Your task to perform on an android device: turn on translation in the chrome app Image 0: 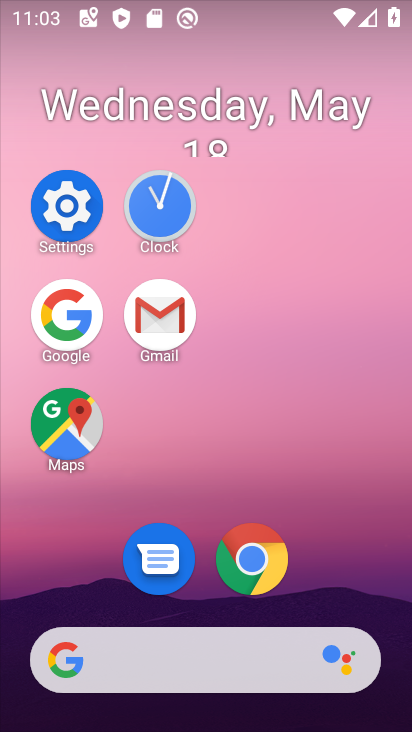
Step 0: click (258, 565)
Your task to perform on an android device: turn on translation in the chrome app Image 1: 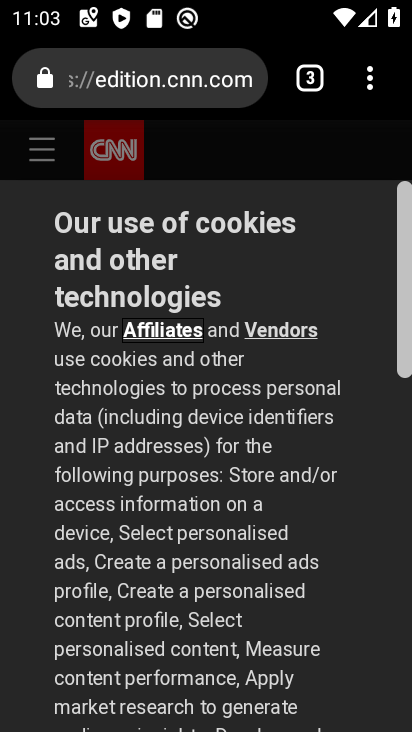
Step 1: click (373, 77)
Your task to perform on an android device: turn on translation in the chrome app Image 2: 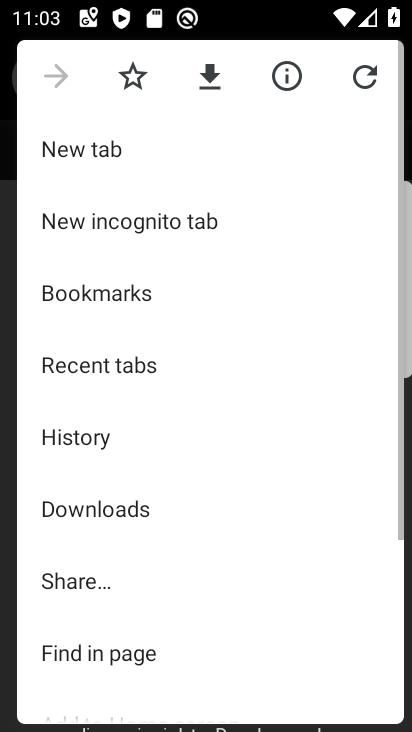
Step 2: drag from (229, 525) to (263, 189)
Your task to perform on an android device: turn on translation in the chrome app Image 3: 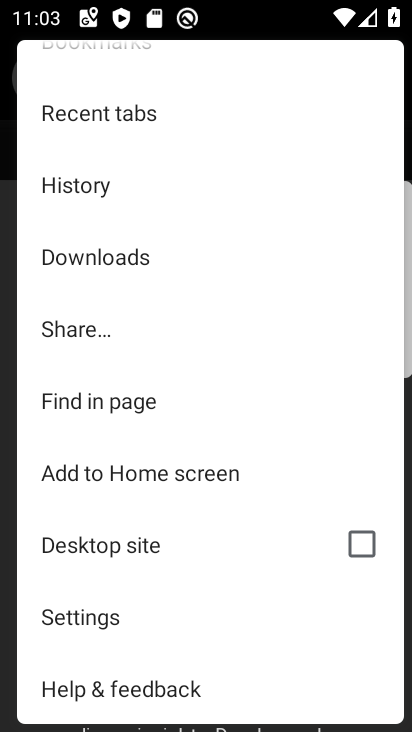
Step 3: click (118, 631)
Your task to perform on an android device: turn on translation in the chrome app Image 4: 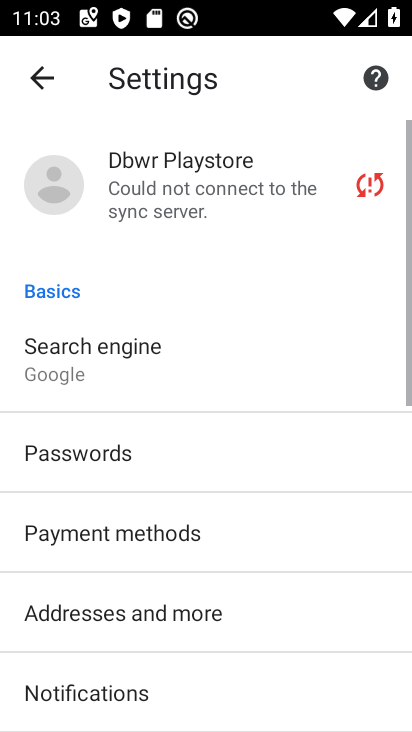
Step 4: drag from (239, 610) to (298, 160)
Your task to perform on an android device: turn on translation in the chrome app Image 5: 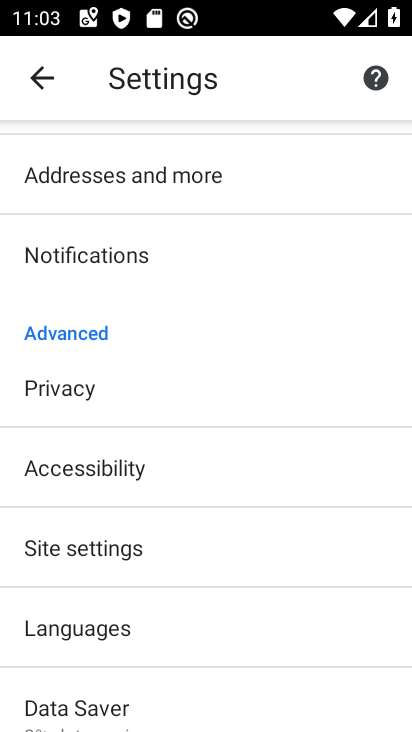
Step 5: click (150, 615)
Your task to perform on an android device: turn on translation in the chrome app Image 6: 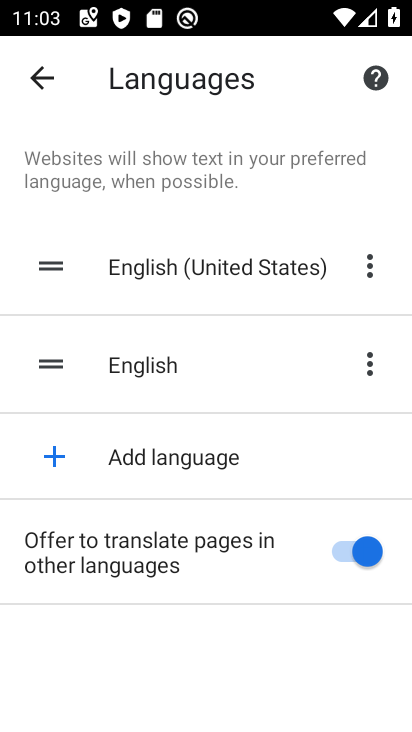
Step 6: task complete